Your task to perform on an android device: refresh tabs in the chrome app Image 0: 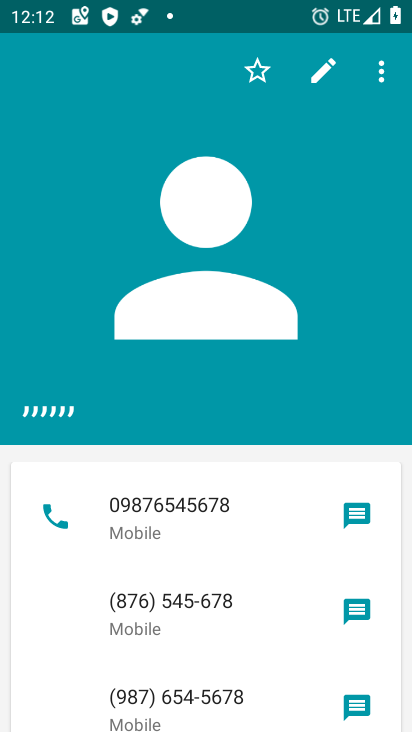
Step 0: press home button
Your task to perform on an android device: refresh tabs in the chrome app Image 1: 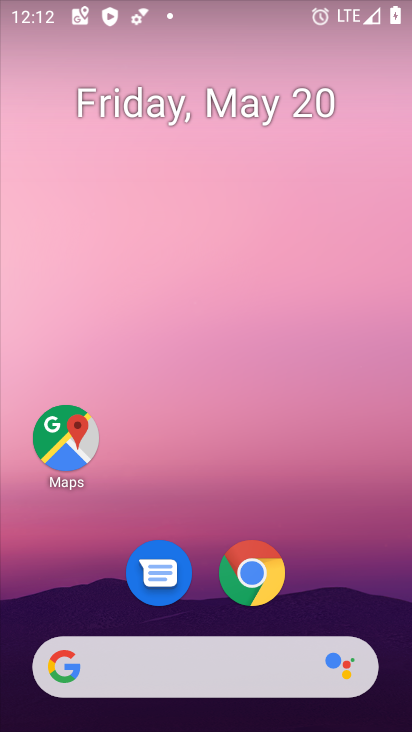
Step 1: click (250, 560)
Your task to perform on an android device: refresh tabs in the chrome app Image 2: 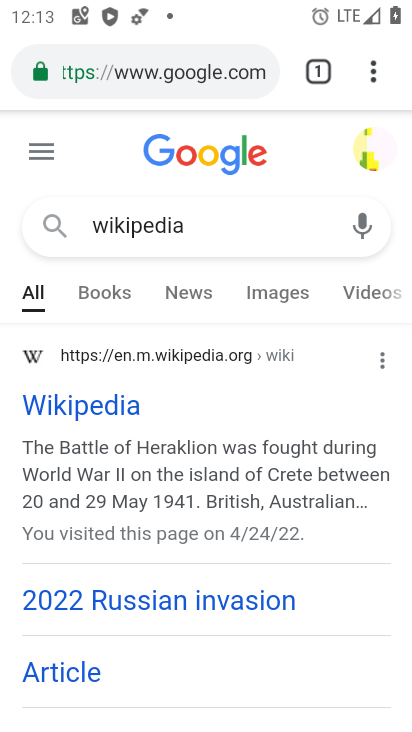
Step 2: click (366, 61)
Your task to perform on an android device: refresh tabs in the chrome app Image 3: 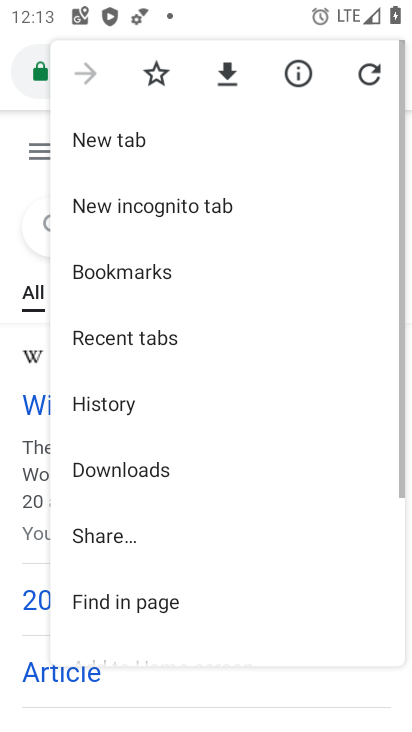
Step 3: click (377, 78)
Your task to perform on an android device: refresh tabs in the chrome app Image 4: 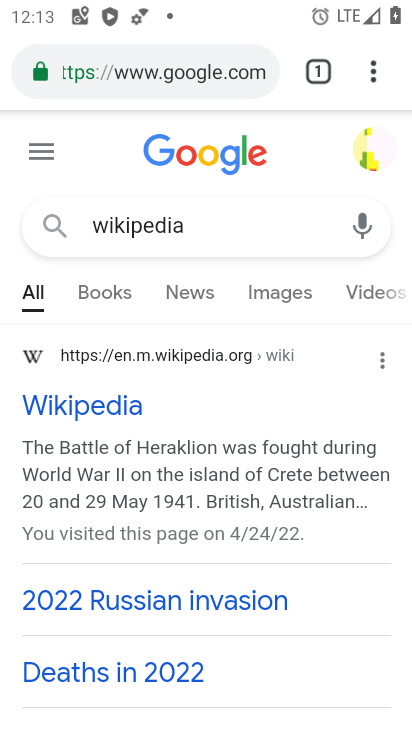
Step 4: task complete